Your task to perform on an android device: turn off notifications in google photos Image 0: 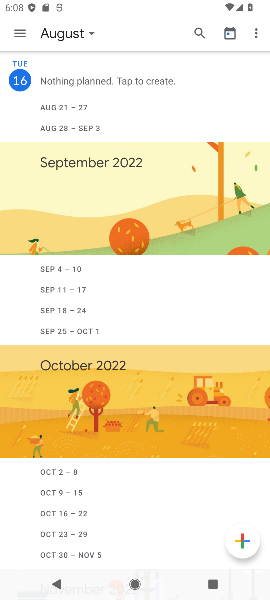
Step 0: press home button
Your task to perform on an android device: turn off notifications in google photos Image 1: 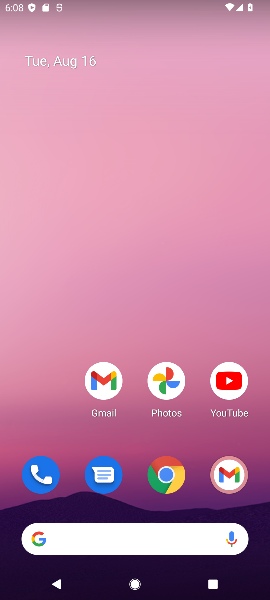
Step 1: drag from (76, 444) to (50, 161)
Your task to perform on an android device: turn off notifications in google photos Image 2: 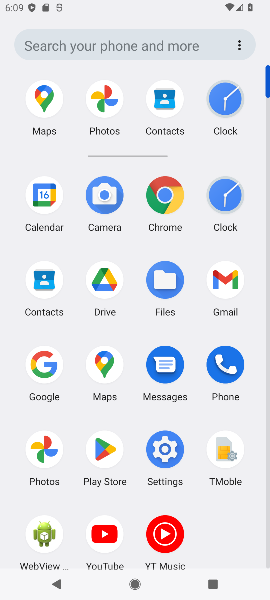
Step 2: click (47, 450)
Your task to perform on an android device: turn off notifications in google photos Image 3: 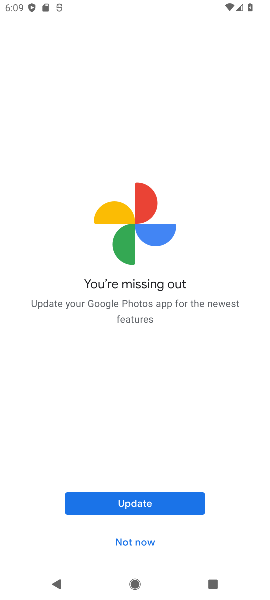
Step 3: click (139, 506)
Your task to perform on an android device: turn off notifications in google photos Image 4: 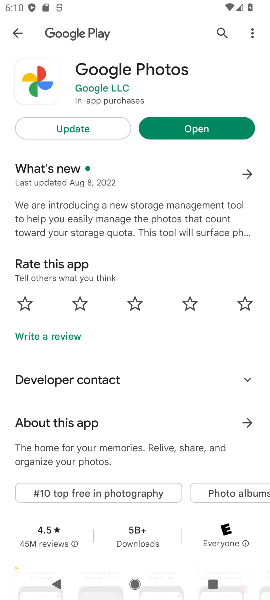
Step 4: click (78, 131)
Your task to perform on an android device: turn off notifications in google photos Image 5: 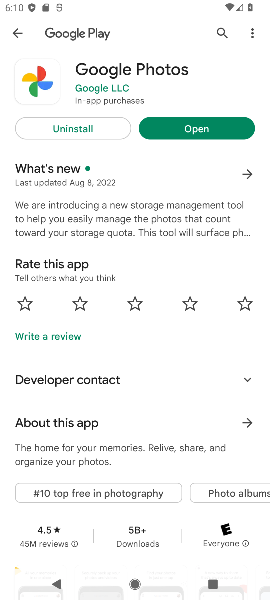
Step 5: click (176, 121)
Your task to perform on an android device: turn off notifications in google photos Image 6: 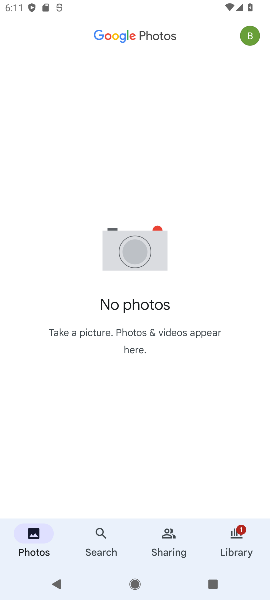
Step 6: task complete